Your task to perform on an android device: What is the recent news? Image 0: 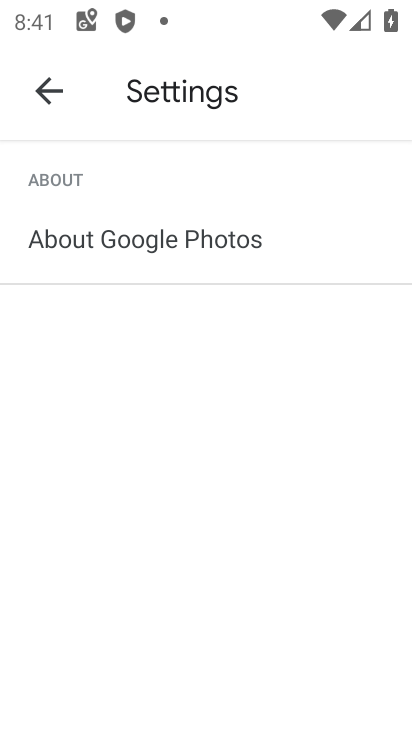
Step 0: press home button
Your task to perform on an android device: What is the recent news? Image 1: 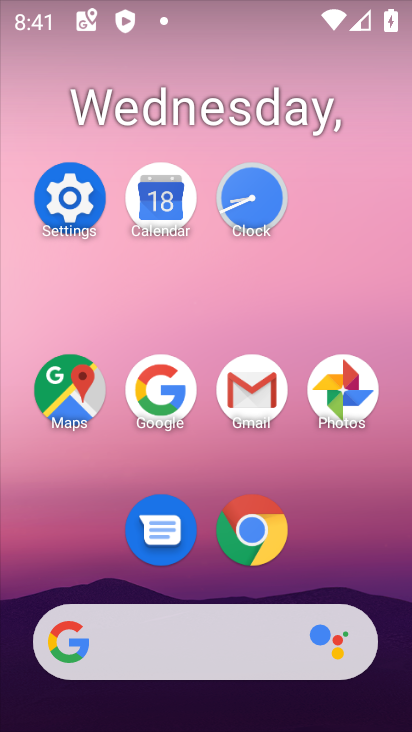
Step 1: click (157, 398)
Your task to perform on an android device: What is the recent news? Image 2: 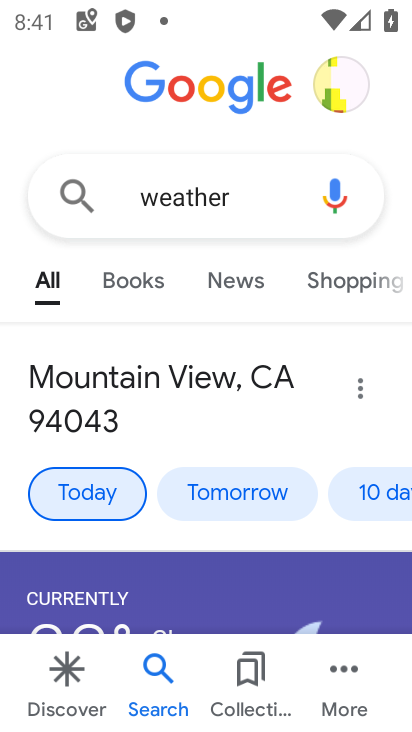
Step 2: click (295, 194)
Your task to perform on an android device: What is the recent news? Image 3: 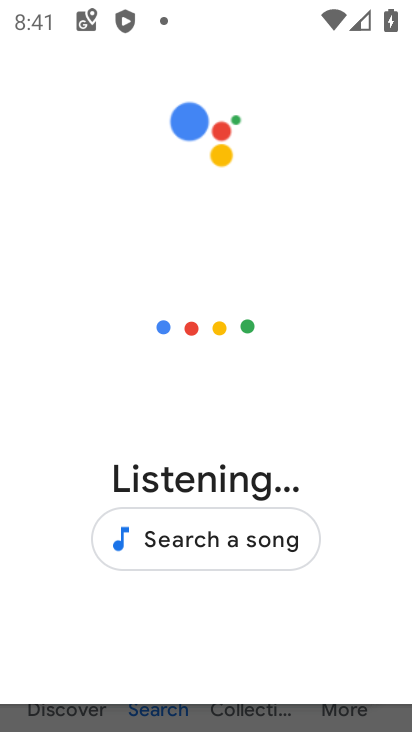
Step 3: press back button
Your task to perform on an android device: What is the recent news? Image 4: 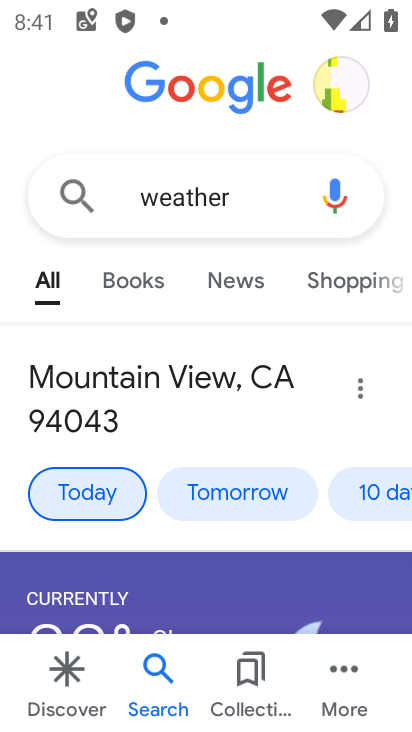
Step 4: click (281, 183)
Your task to perform on an android device: What is the recent news? Image 5: 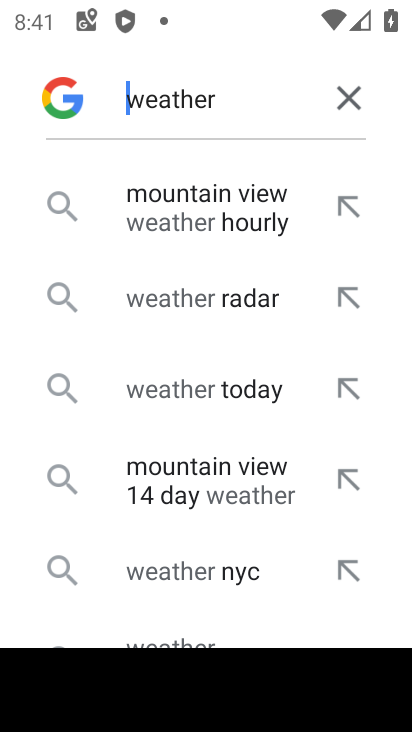
Step 5: click (357, 88)
Your task to perform on an android device: What is the recent news? Image 6: 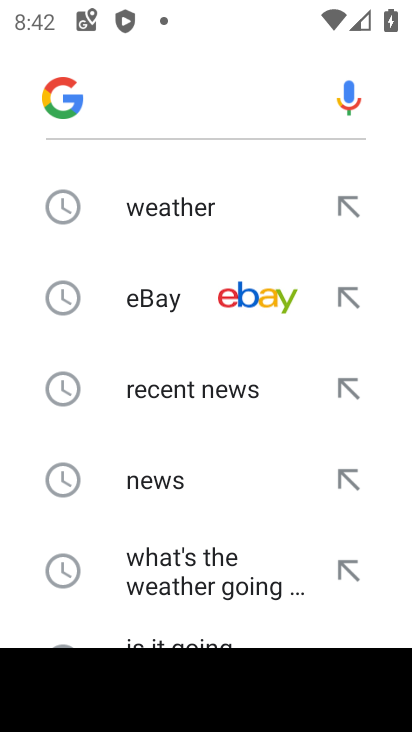
Step 6: drag from (213, 441) to (302, 205)
Your task to perform on an android device: What is the recent news? Image 7: 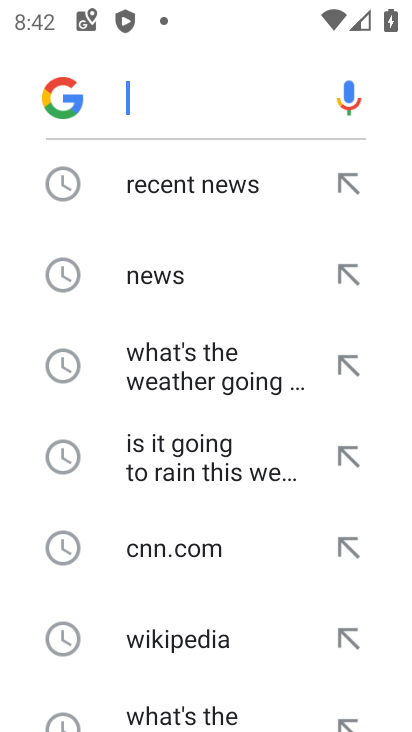
Step 7: click (187, 199)
Your task to perform on an android device: What is the recent news? Image 8: 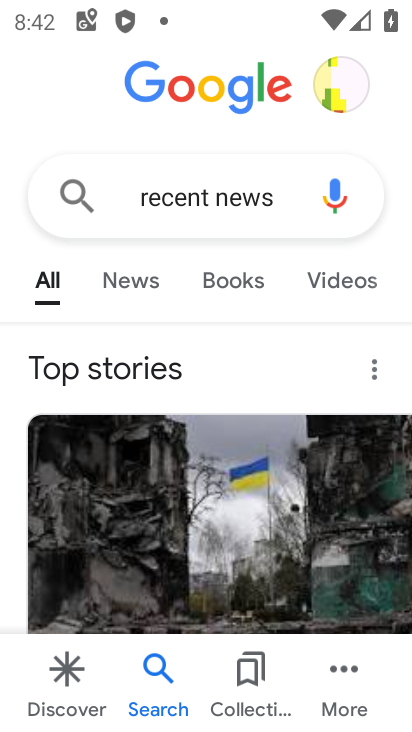
Step 8: task complete